Your task to perform on an android device: What's on my calendar today? Image 0: 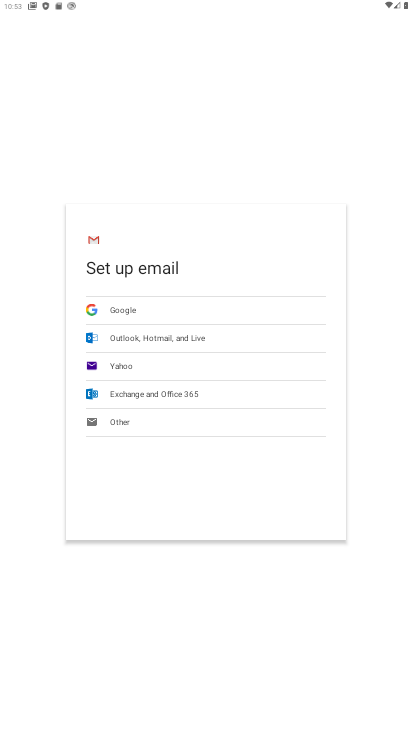
Step 0: press home button
Your task to perform on an android device: What's on my calendar today? Image 1: 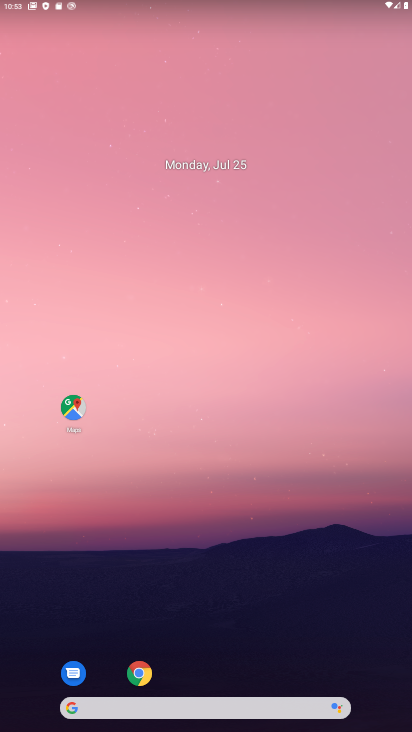
Step 1: drag from (232, 670) to (234, 64)
Your task to perform on an android device: What's on my calendar today? Image 2: 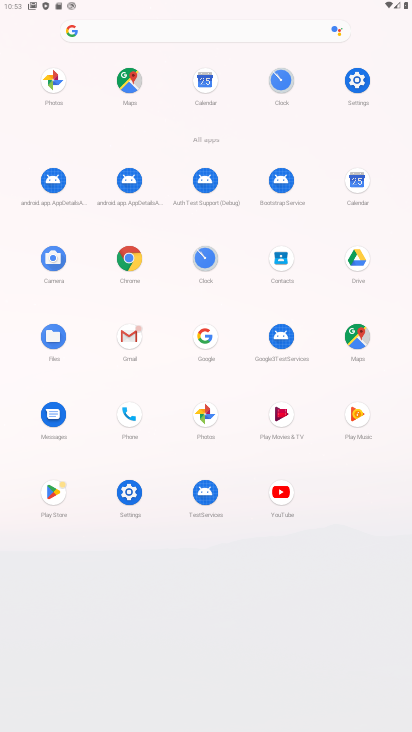
Step 2: click (360, 170)
Your task to perform on an android device: What's on my calendar today? Image 3: 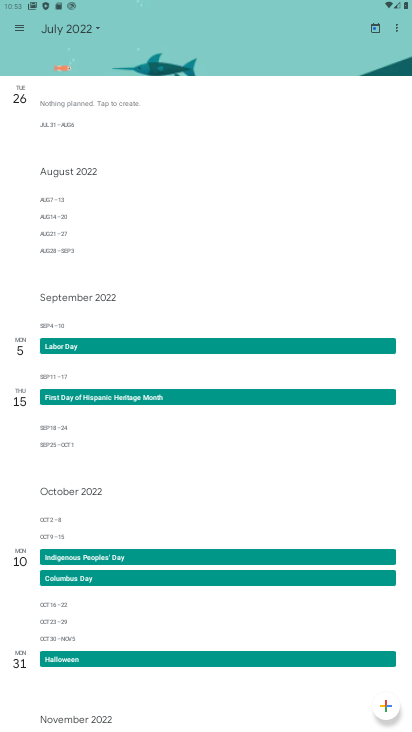
Step 3: click (71, 29)
Your task to perform on an android device: What's on my calendar today? Image 4: 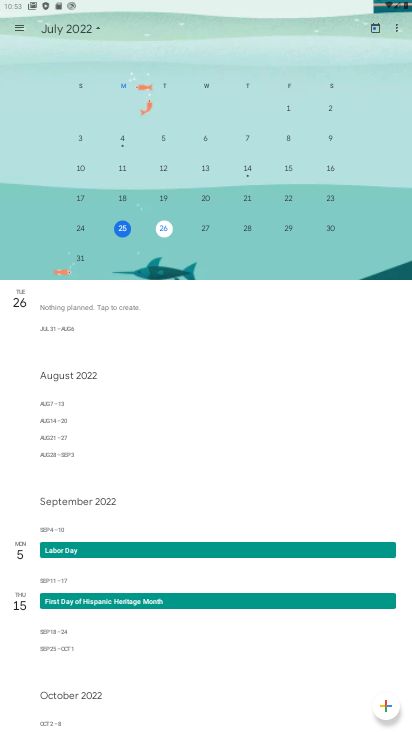
Step 4: click (121, 226)
Your task to perform on an android device: What's on my calendar today? Image 5: 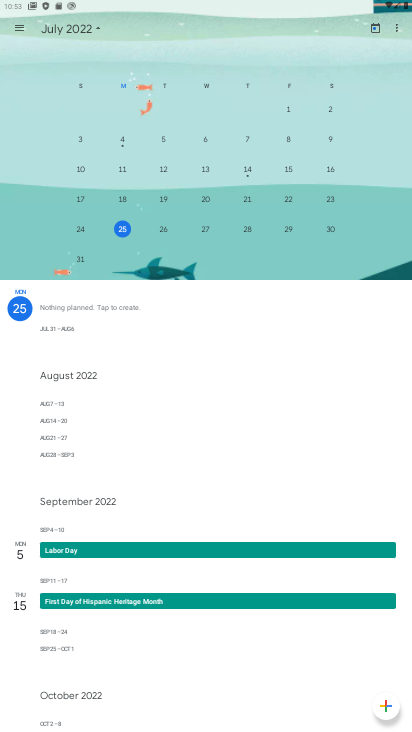
Step 5: task complete